Your task to perform on an android device: What's the weather? Image 0: 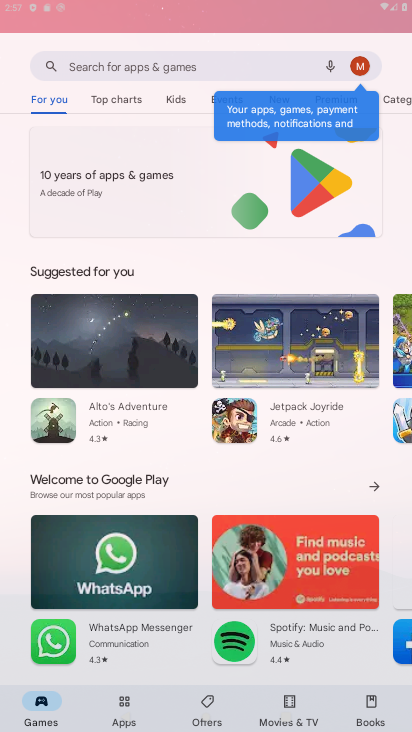
Step 0: drag from (215, 440) to (215, 210)
Your task to perform on an android device: What's the weather? Image 1: 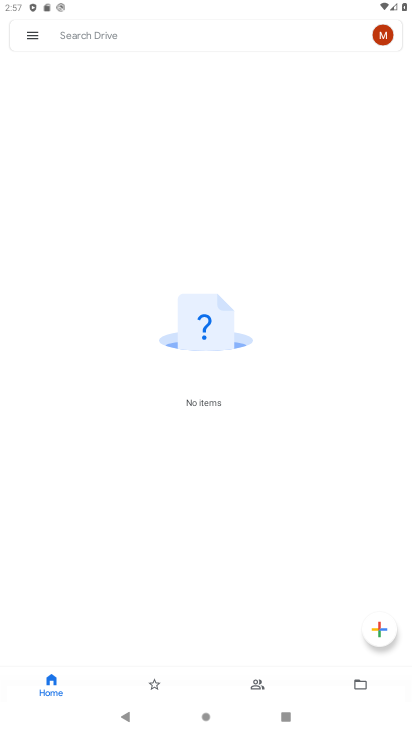
Step 1: press home button
Your task to perform on an android device: What's the weather? Image 2: 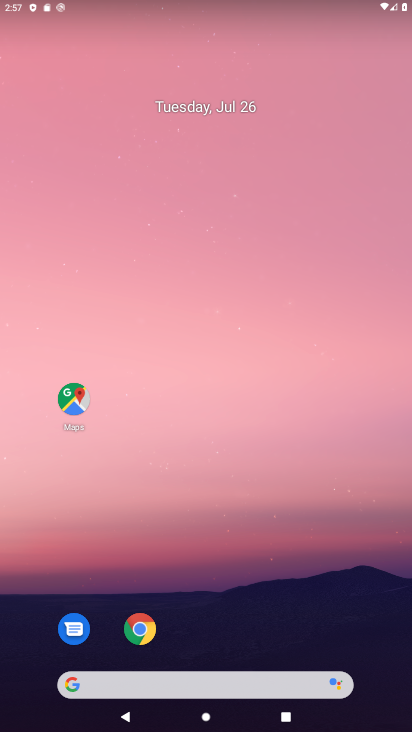
Step 2: drag from (229, 712) to (221, 279)
Your task to perform on an android device: What's the weather? Image 3: 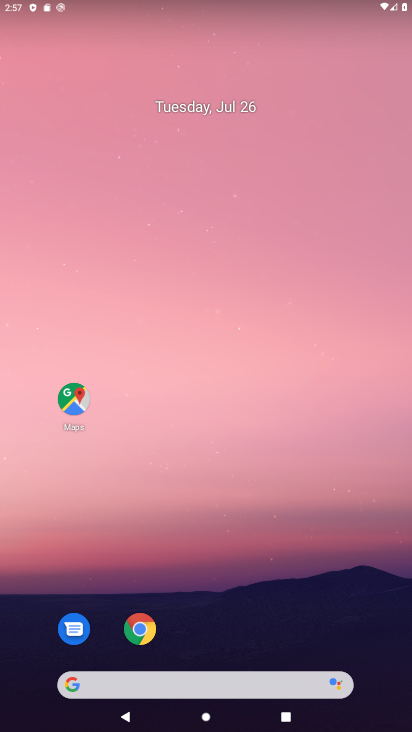
Step 3: drag from (224, 714) to (195, 84)
Your task to perform on an android device: What's the weather? Image 4: 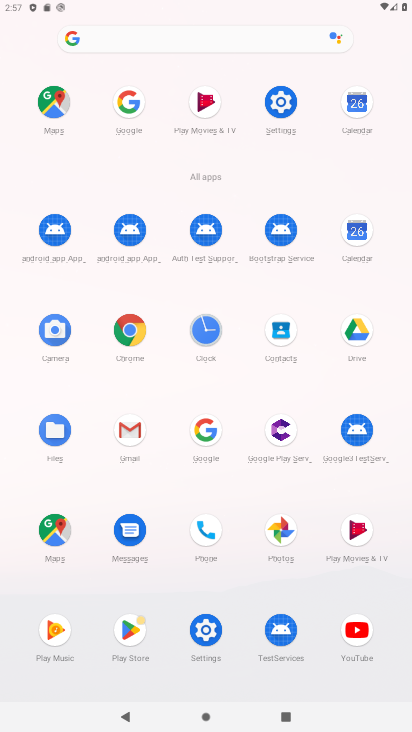
Step 4: click (205, 433)
Your task to perform on an android device: What's the weather? Image 5: 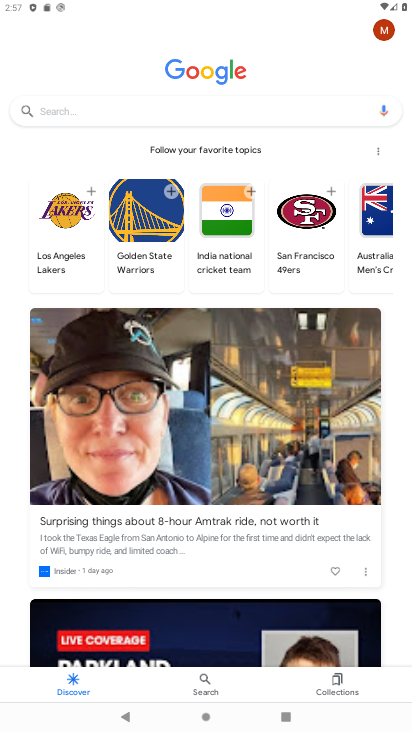
Step 5: click (182, 114)
Your task to perform on an android device: What's the weather? Image 6: 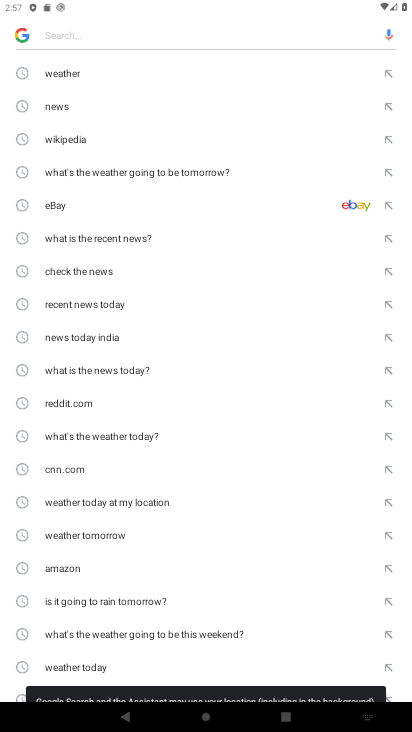
Step 6: click (74, 69)
Your task to perform on an android device: What's the weather? Image 7: 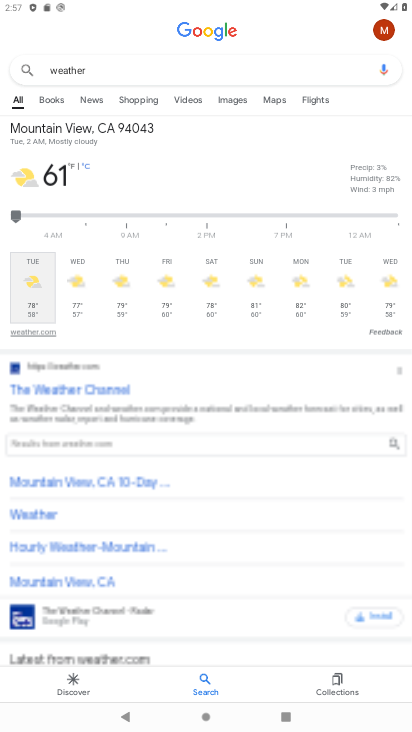
Step 7: task complete